Your task to perform on an android device: Open accessibility settings Image 0: 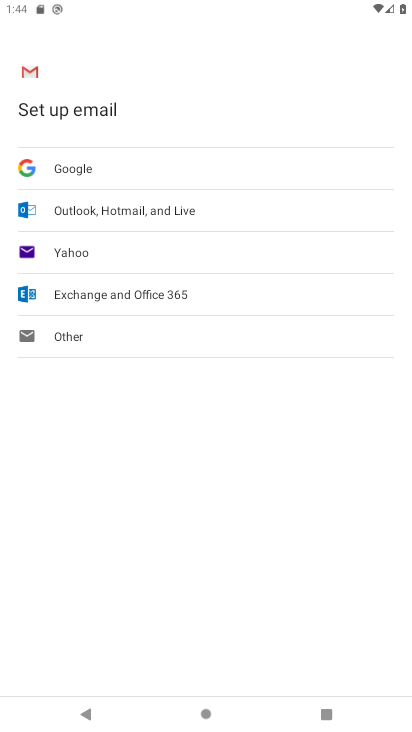
Step 0: press home button
Your task to perform on an android device: Open accessibility settings Image 1: 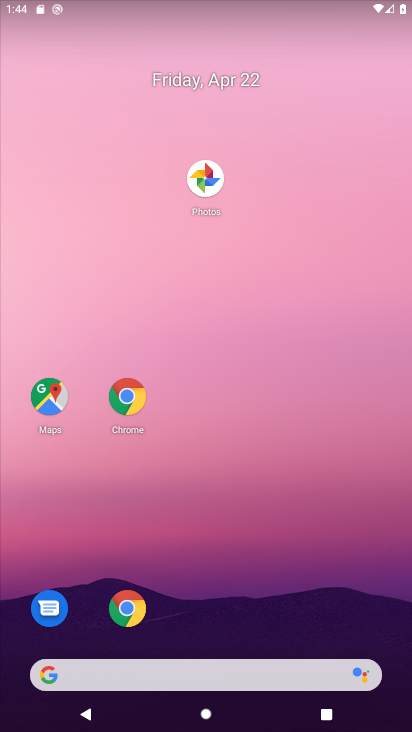
Step 1: drag from (280, 681) to (320, 218)
Your task to perform on an android device: Open accessibility settings Image 2: 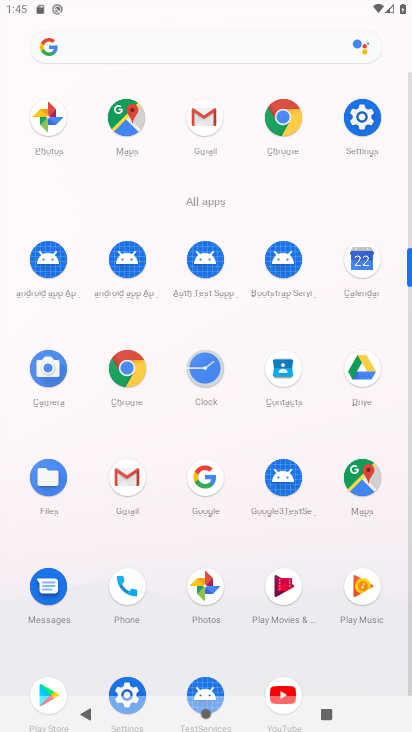
Step 2: click (121, 479)
Your task to perform on an android device: Open accessibility settings Image 3: 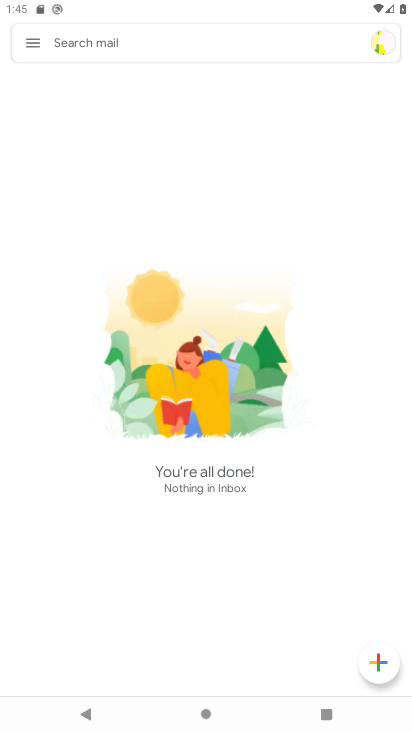
Step 3: click (37, 41)
Your task to perform on an android device: Open accessibility settings Image 4: 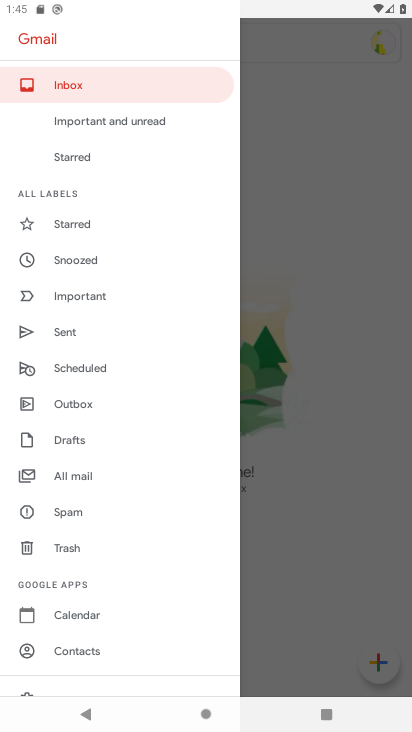
Step 4: drag from (81, 555) to (120, 106)
Your task to perform on an android device: Open accessibility settings Image 5: 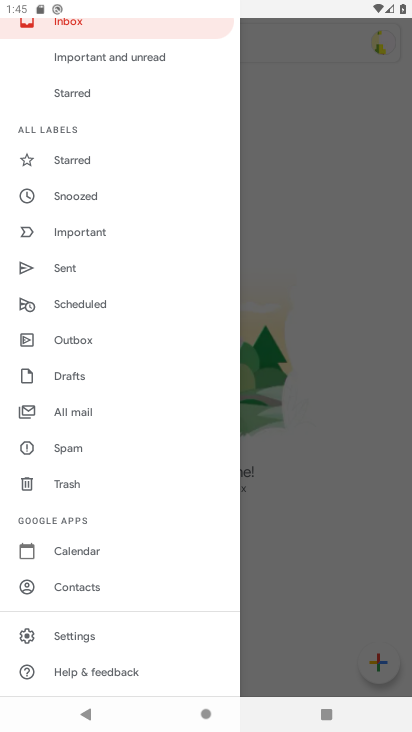
Step 5: press home button
Your task to perform on an android device: Open accessibility settings Image 6: 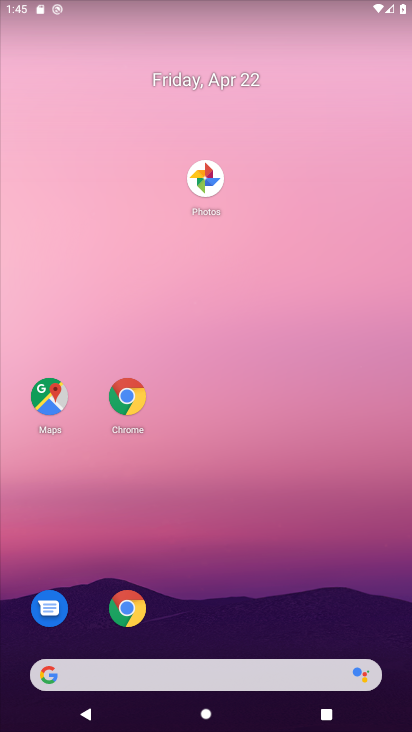
Step 6: drag from (216, 588) to (177, 20)
Your task to perform on an android device: Open accessibility settings Image 7: 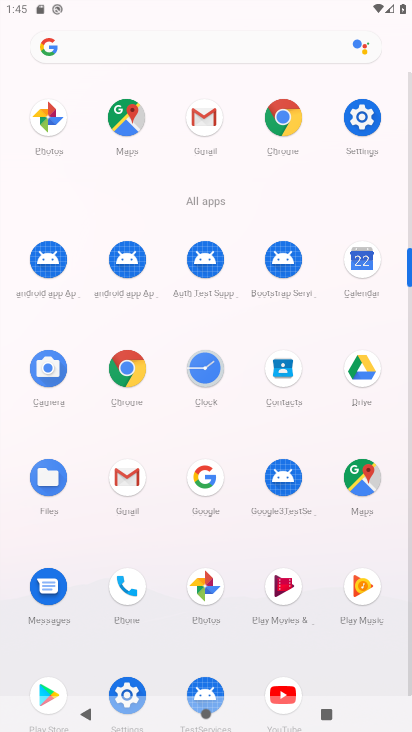
Step 7: click (363, 101)
Your task to perform on an android device: Open accessibility settings Image 8: 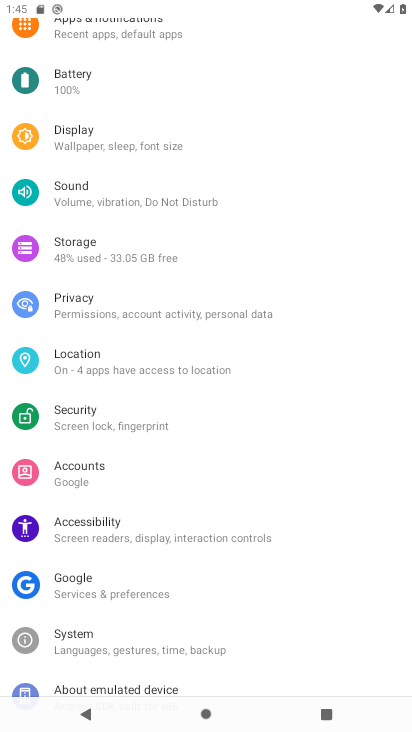
Step 8: click (363, 101)
Your task to perform on an android device: Open accessibility settings Image 9: 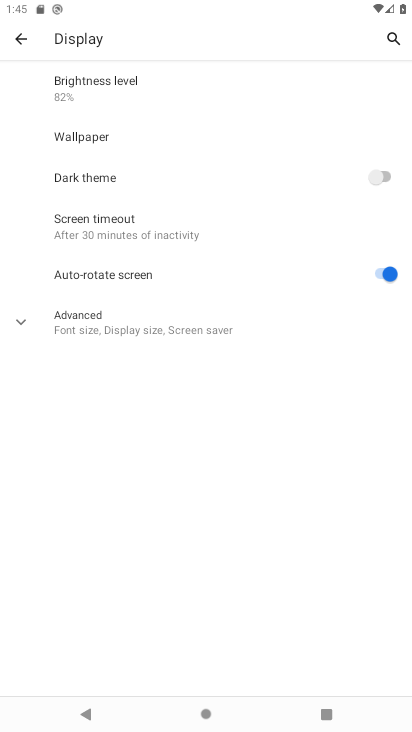
Step 9: click (14, 35)
Your task to perform on an android device: Open accessibility settings Image 10: 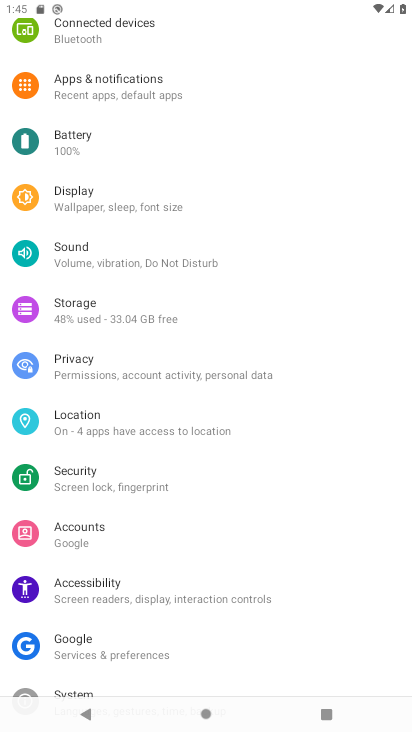
Step 10: click (101, 573)
Your task to perform on an android device: Open accessibility settings Image 11: 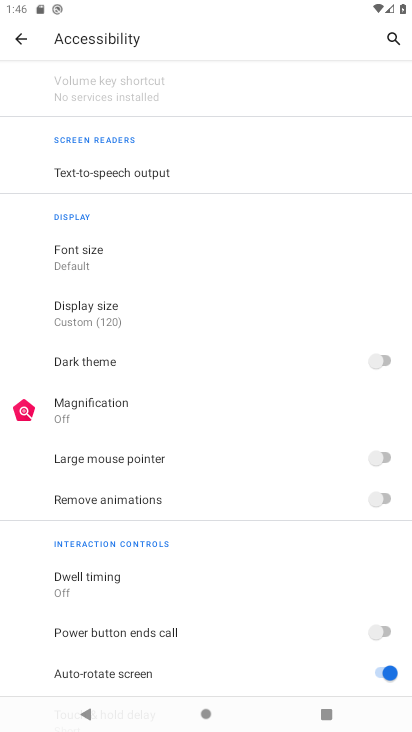
Step 11: task complete